Your task to perform on an android device: uninstall "HBO Max: Stream TV & Movies" Image 0: 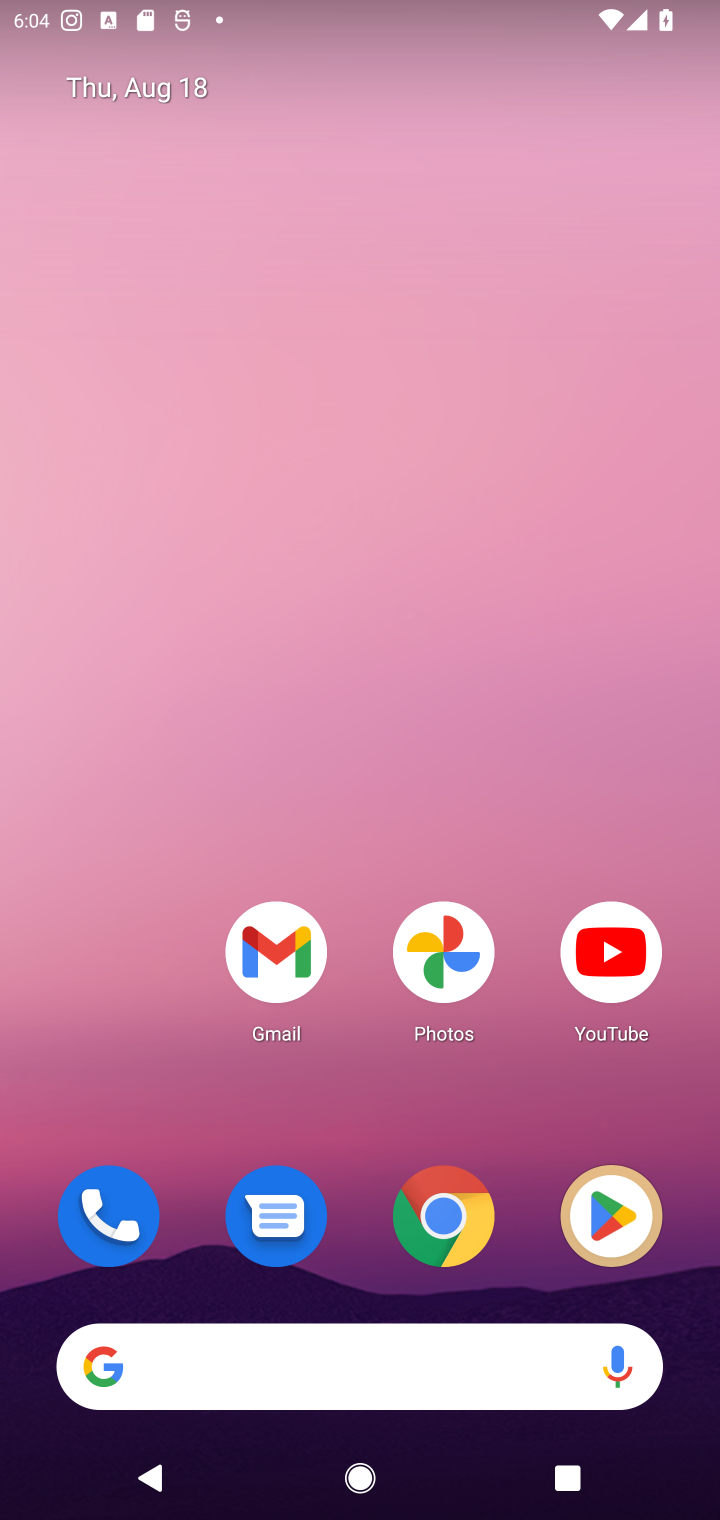
Step 0: click (571, 1202)
Your task to perform on an android device: uninstall "HBO Max: Stream TV & Movies" Image 1: 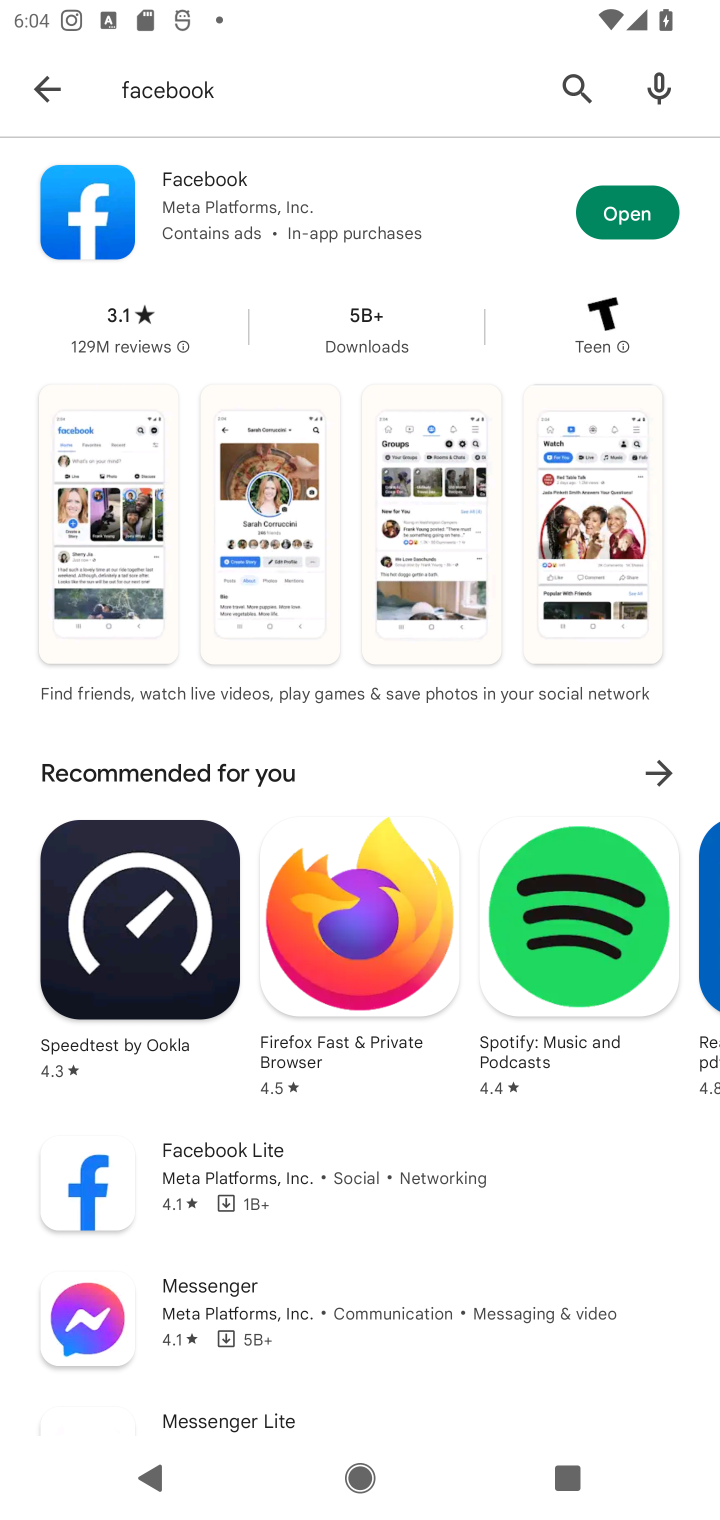
Step 1: click (571, 72)
Your task to perform on an android device: uninstall "HBO Max: Stream TV & Movies" Image 2: 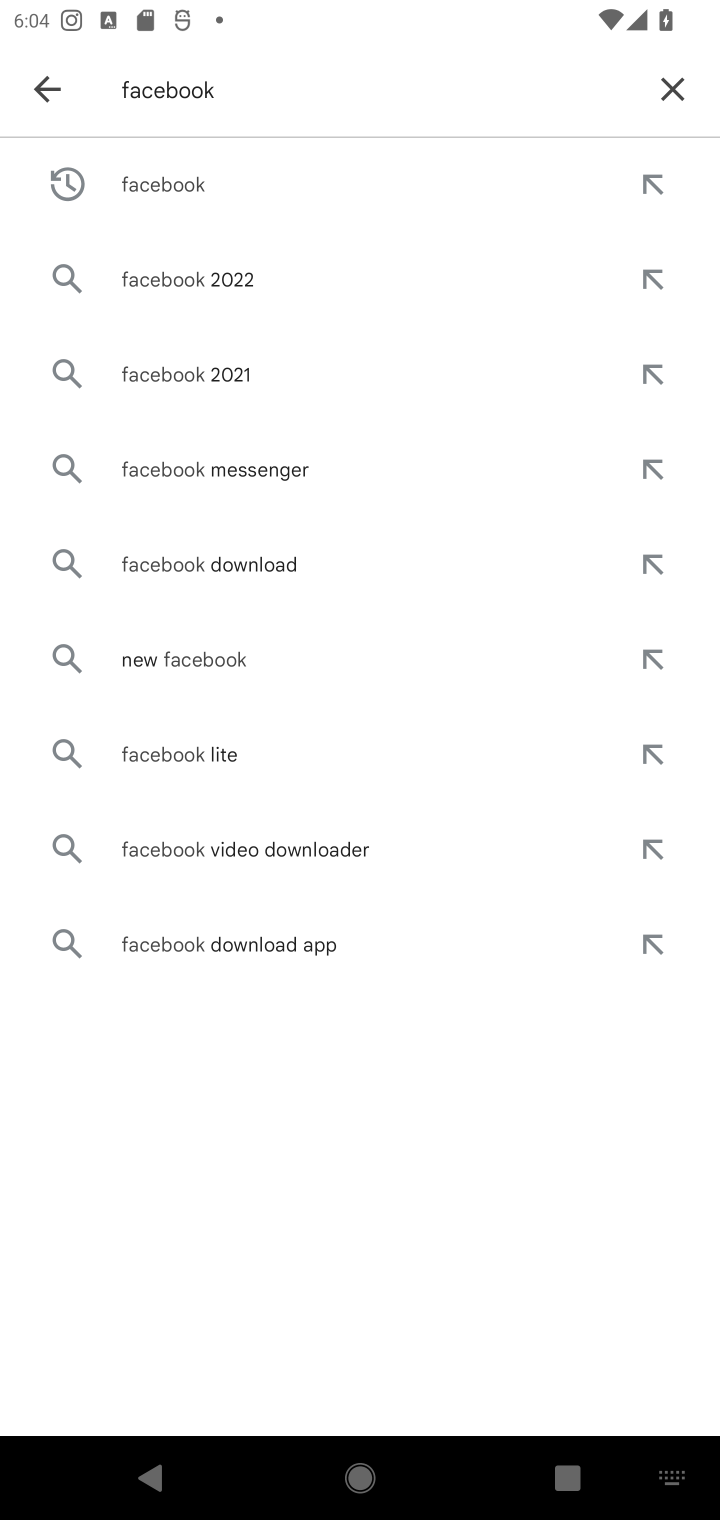
Step 2: click (661, 81)
Your task to perform on an android device: uninstall "HBO Max: Stream TV & Movies" Image 3: 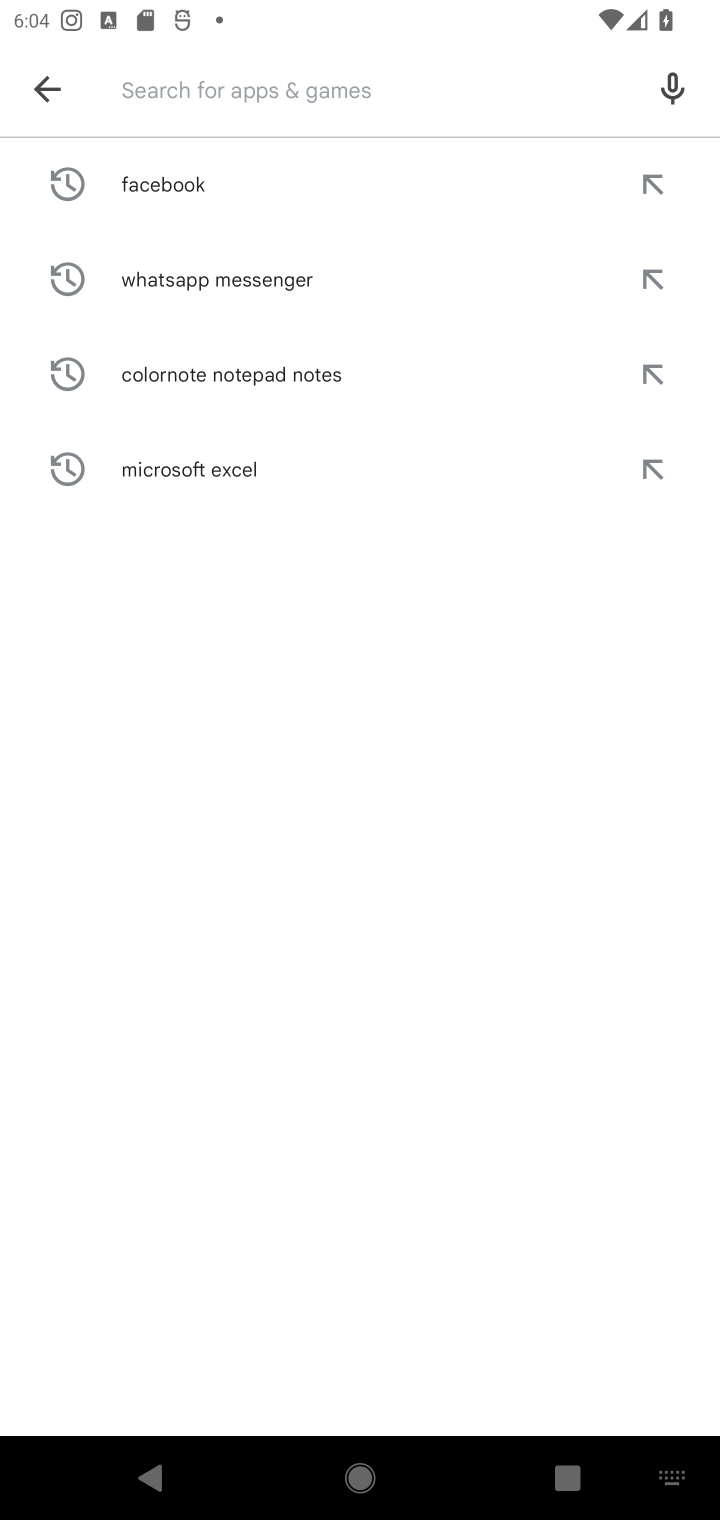
Step 3: type "HBO Max: Stream TV & Movies"
Your task to perform on an android device: uninstall "HBO Max: Stream TV & Movies" Image 4: 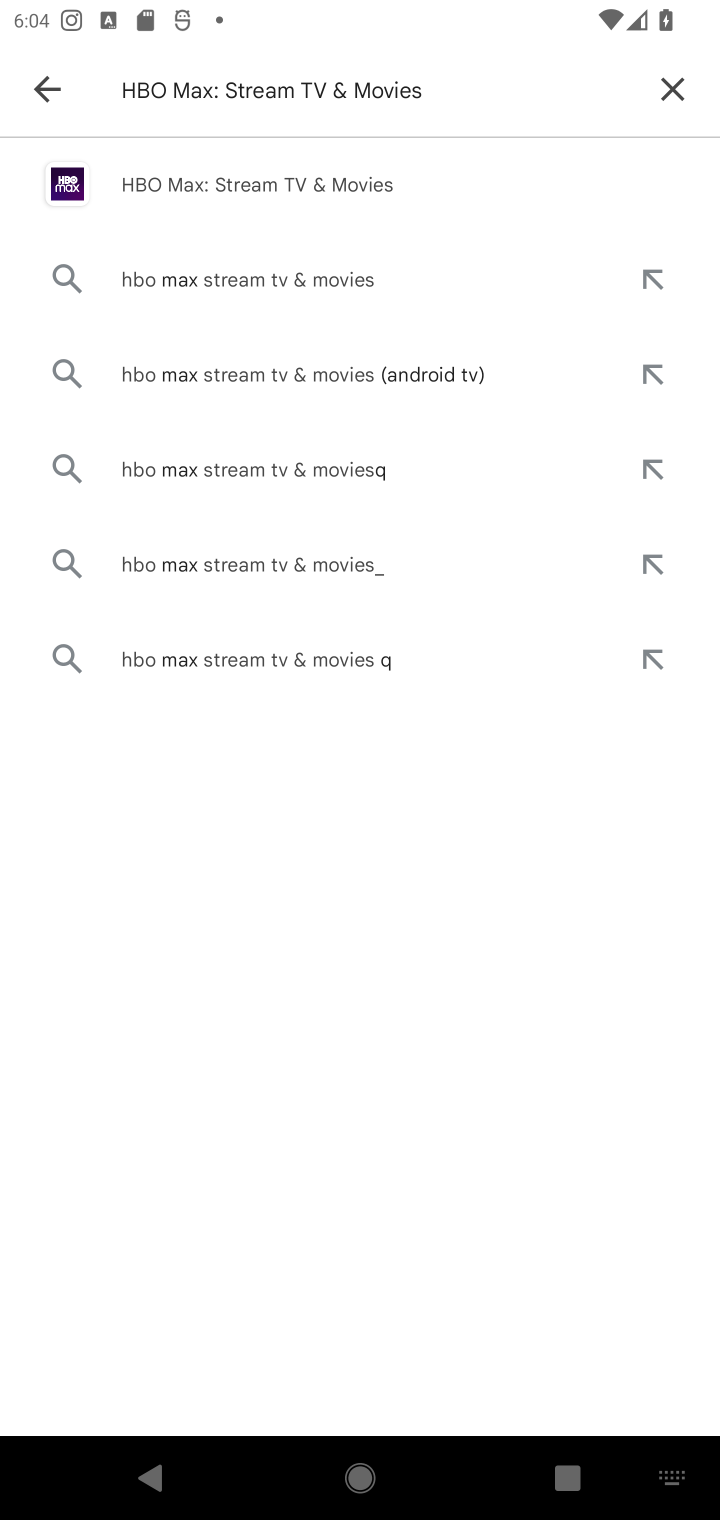
Step 4: click (396, 184)
Your task to perform on an android device: uninstall "HBO Max: Stream TV & Movies" Image 5: 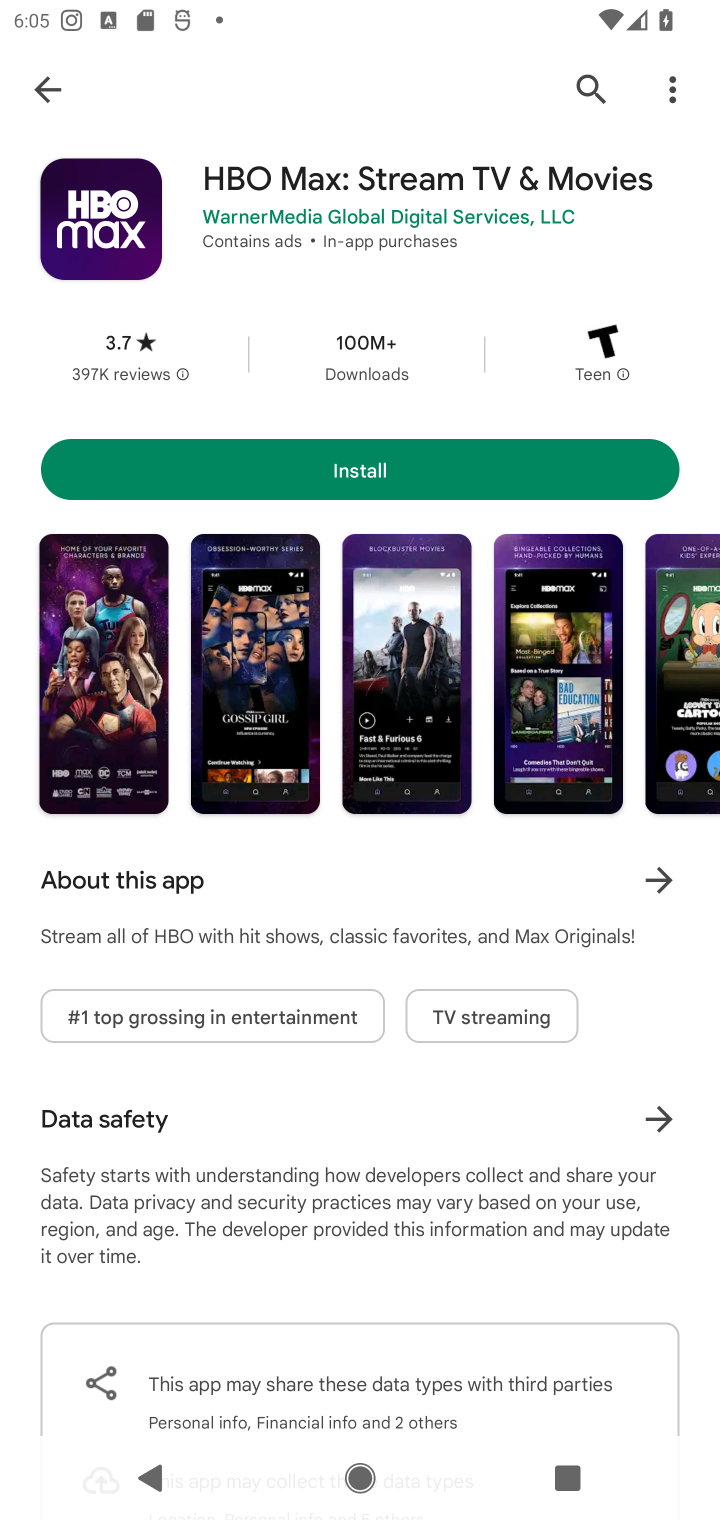
Step 5: task complete